Your task to perform on an android device: What's the weather? Image 0: 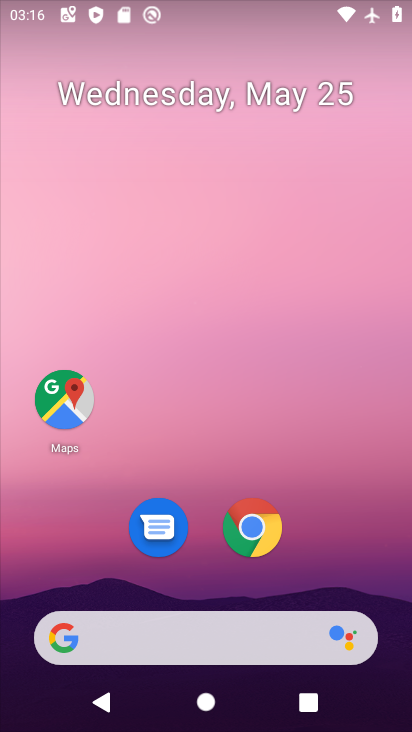
Step 0: click (233, 172)
Your task to perform on an android device: What's the weather? Image 1: 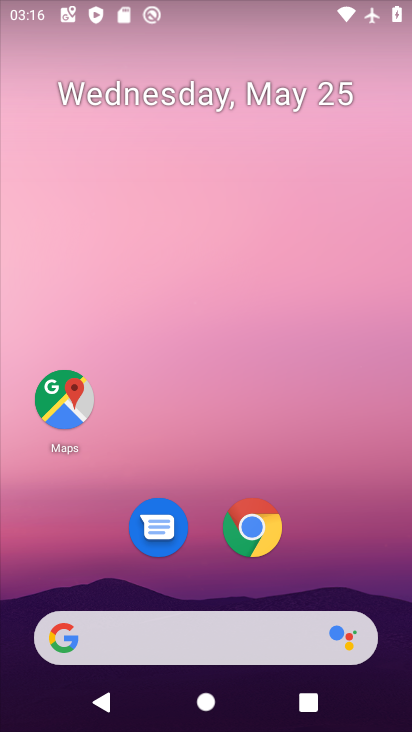
Step 1: drag from (203, 590) to (228, 267)
Your task to perform on an android device: What's the weather? Image 2: 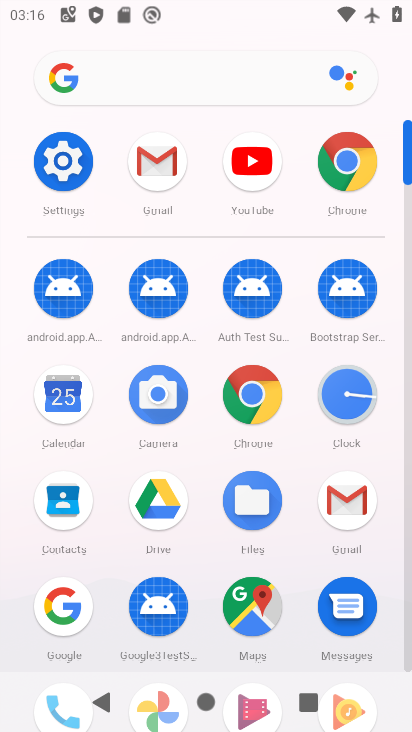
Step 2: click (155, 74)
Your task to perform on an android device: What's the weather? Image 3: 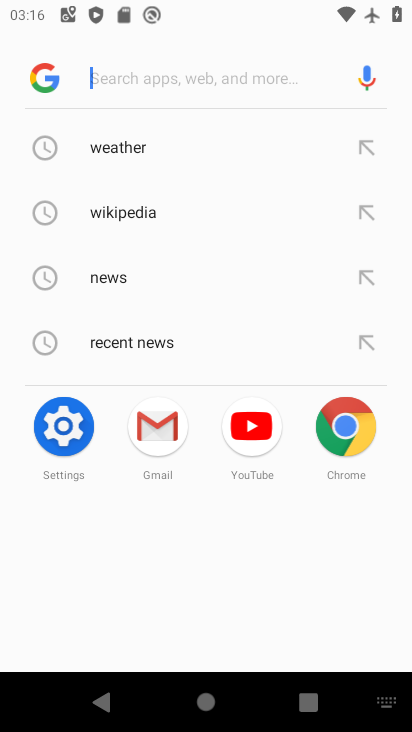
Step 3: click (138, 149)
Your task to perform on an android device: What's the weather? Image 4: 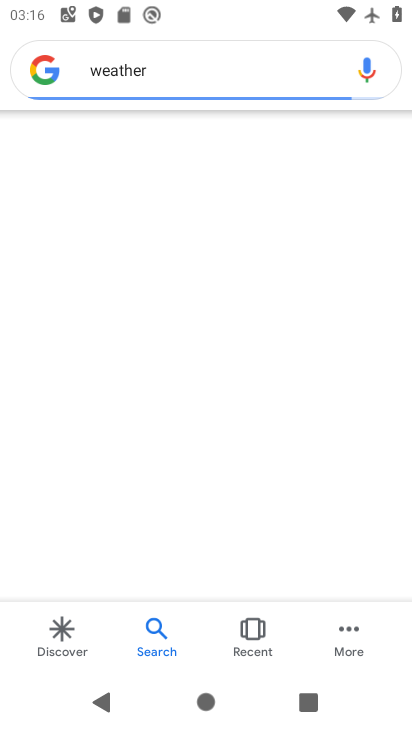
Step 4: task complete